Your task to perform on an android device: open app "Messenger Lite" (install if not already installed) and enter user name: "cataclysmic@outlook.com" and password: "victoriously" Image 0: 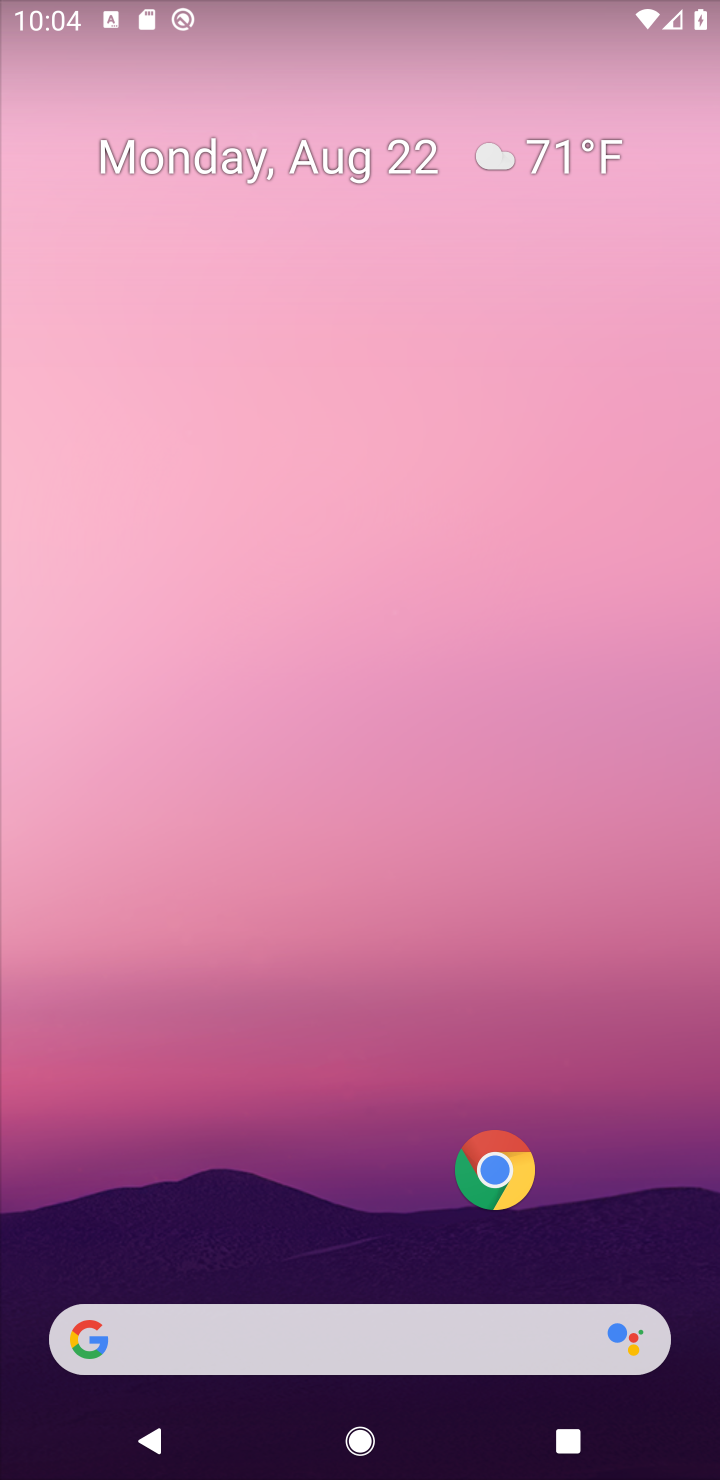
Step 0: drag from (312, 589) to (372, 65)
Your task to perform on an android device: open app "Messenger Lite" (install if not already installed) and enter user name: "cataclysmic@outlook.com" and password: "victoriously" Image 1: 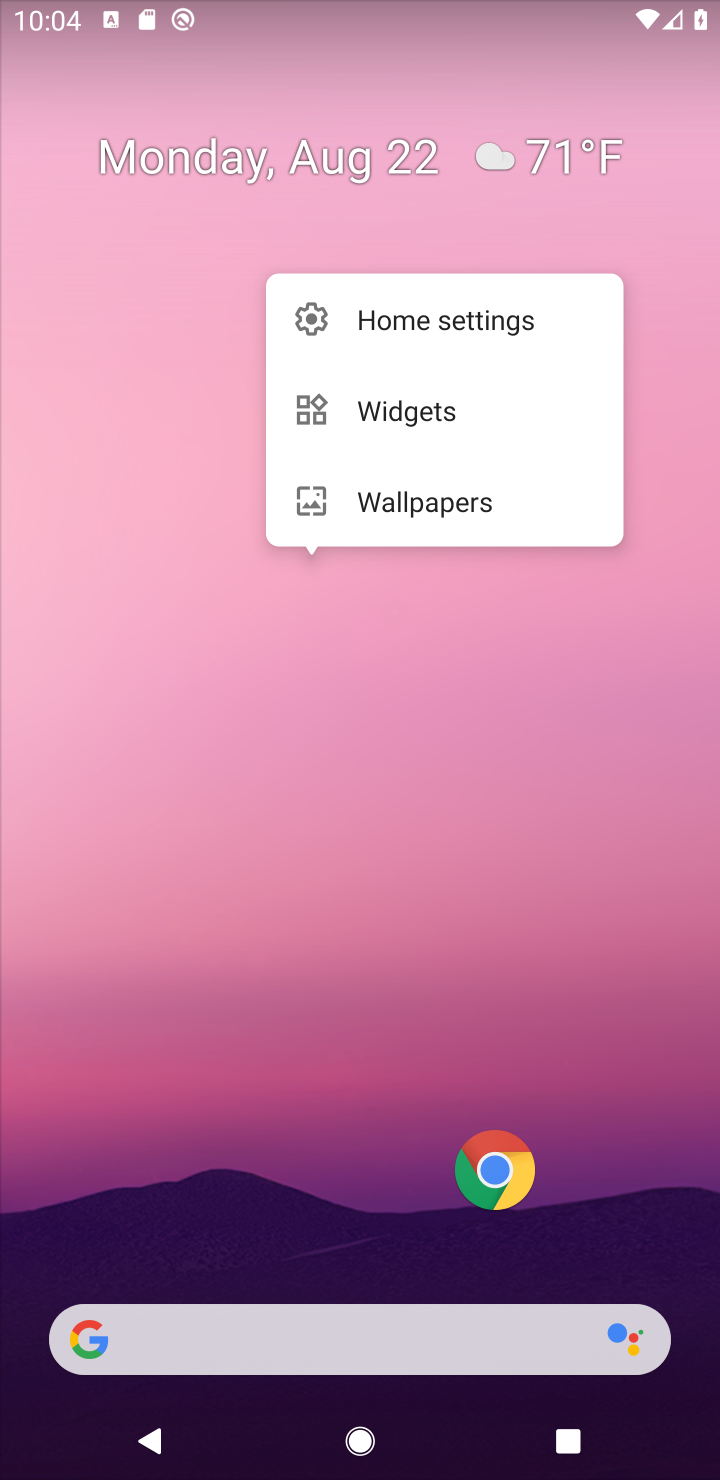
Step 1: click (247, 1078)
Your task to perform on an android device: open app "Messenger Lite" (install if not already installed) and enter user name: "cataclysmic@outlook.com" and password: "victoriously" Image 2: 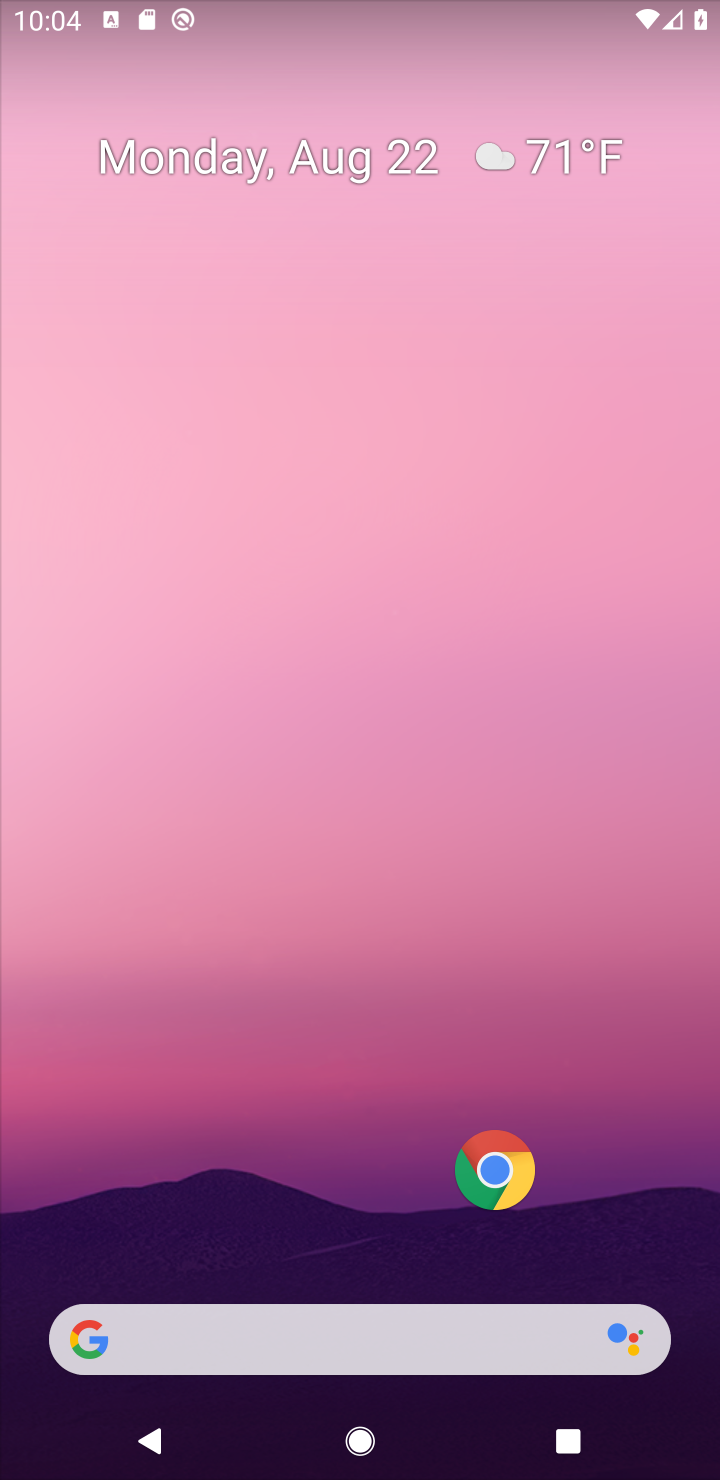
Step 2: drag from (250, 1099) to (440, 34)
Your task to perform on an android device: open app "Messenger Lite" (install if not already installed) and enter user name: "cataclysmic@outlook.com" and password: "victoriously" Image 3: 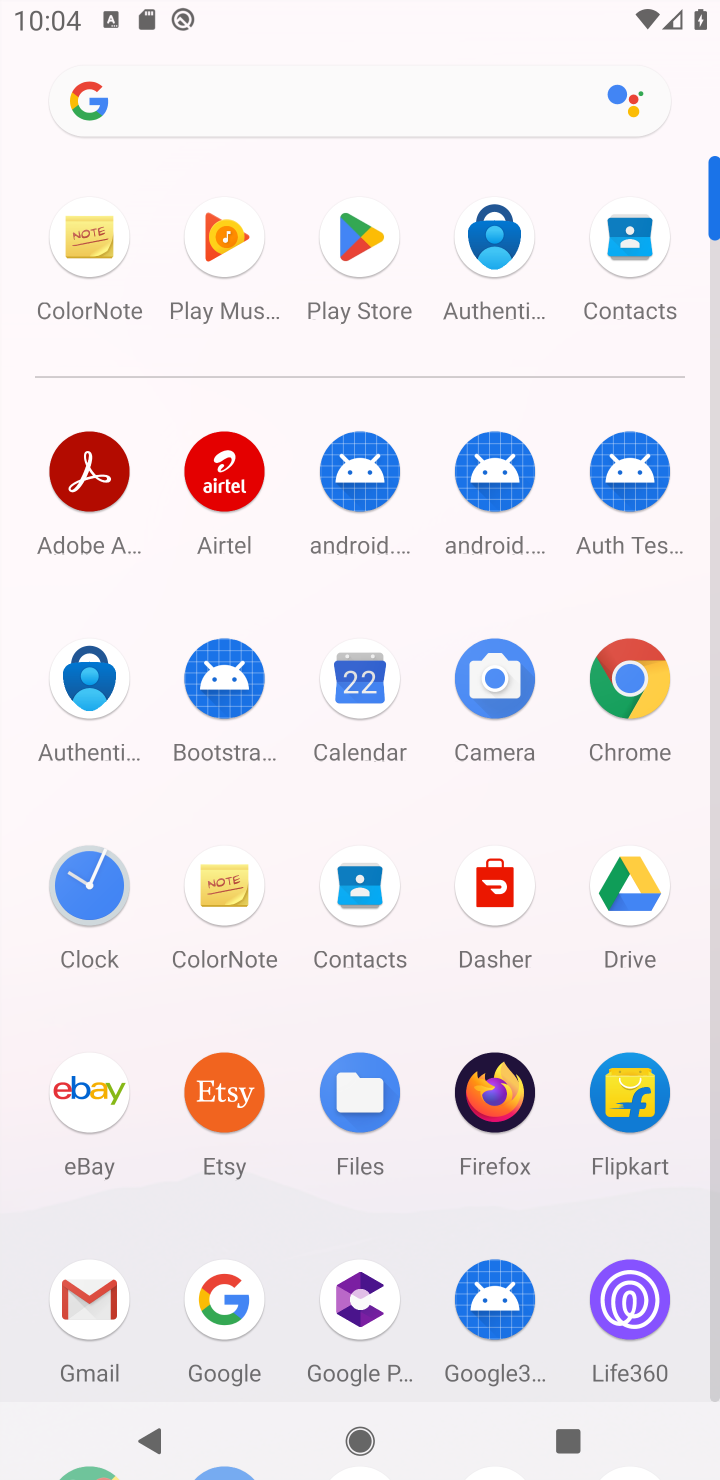
Step 3: click (361, 228)
Your task to perform on an android device: open app "Messenger Lite" (install if not already installed) and enter user name: "cataclysmic@outlook.com" and password: "victoriously" Image 4: 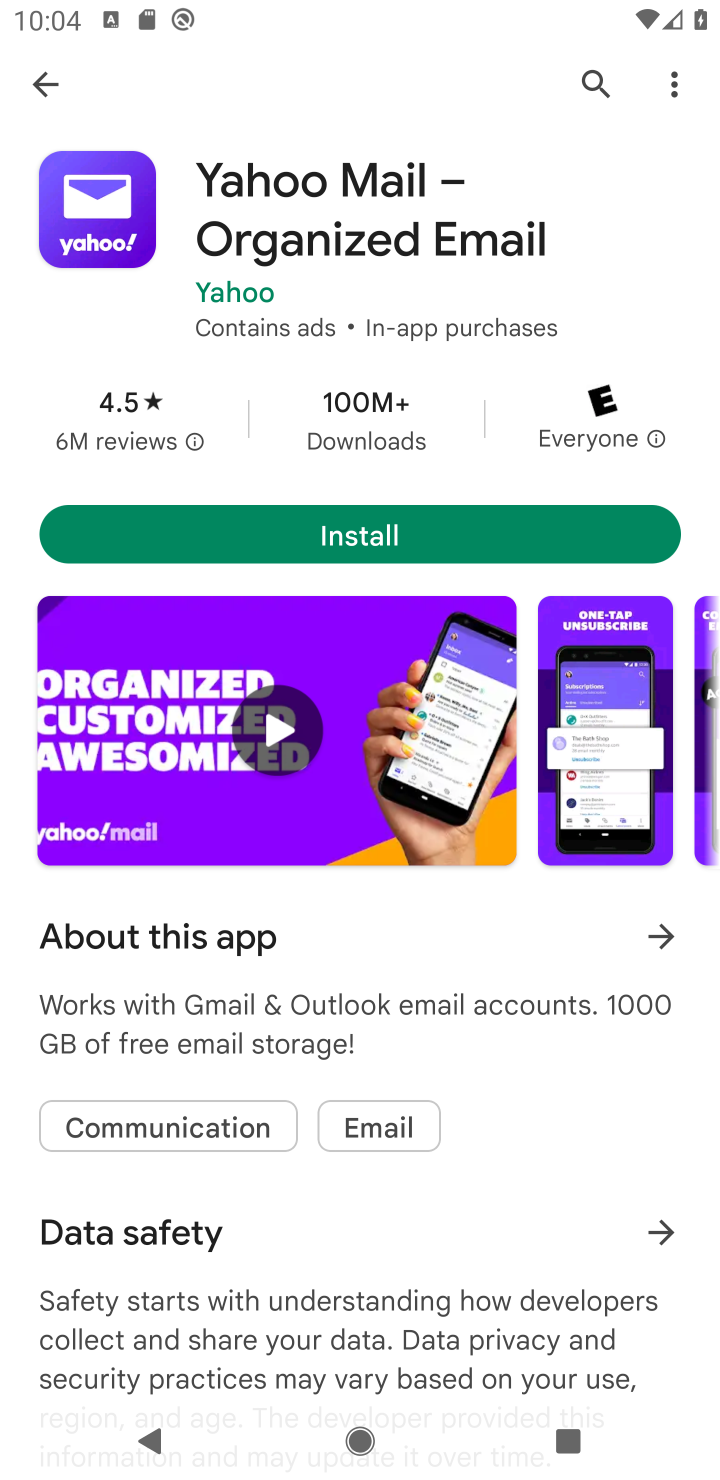
Step 4: click (599, 65)
Your task to perform on an android device: open app "Messenger Lite" (install if not already installed) and enter user name: "cataclysmic@outlook.com" and password: "victoriously" Image 5: 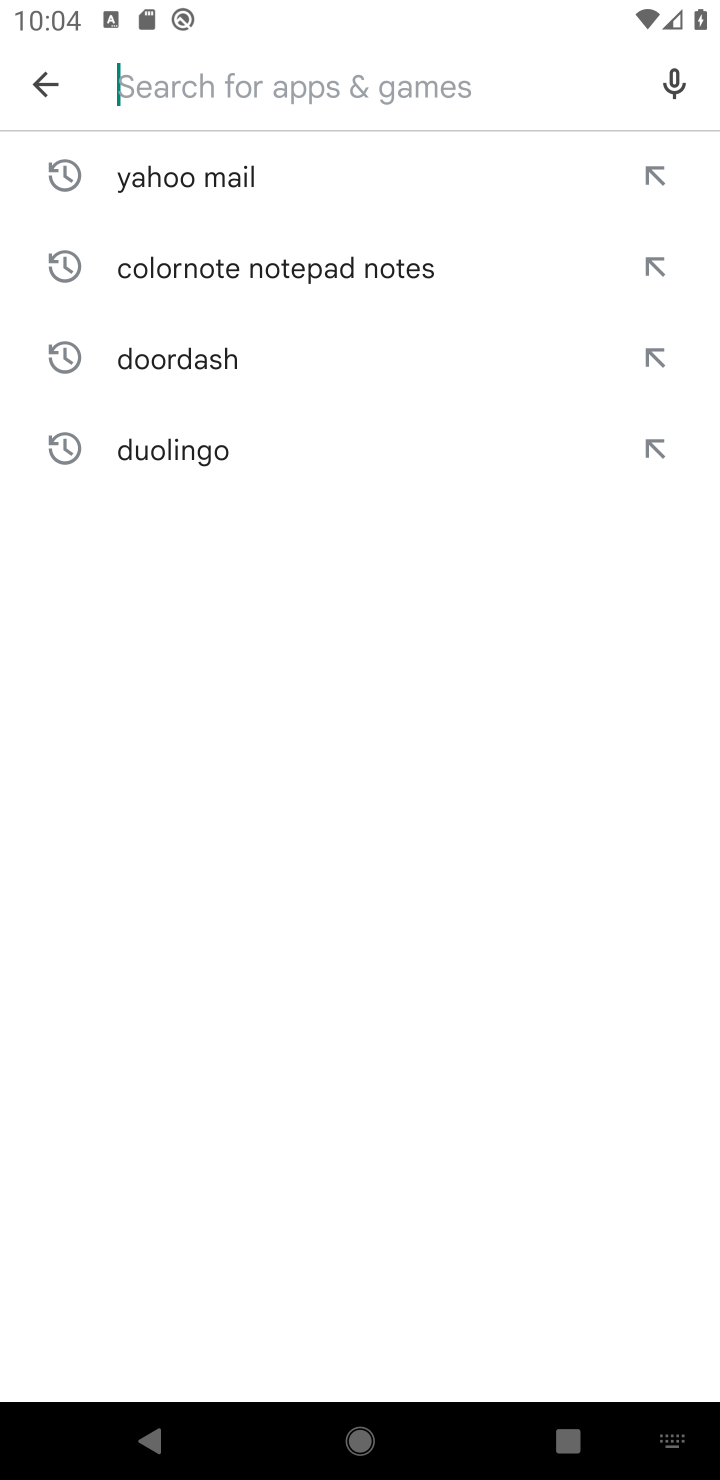
Step 5: type "Messenger Lite"
Your task to perform on an android device: open app "Messenger Lite" (install if not already installed) and enter user name: "cataclysmic@outlook.com" and password: "victoriously" Image 6: 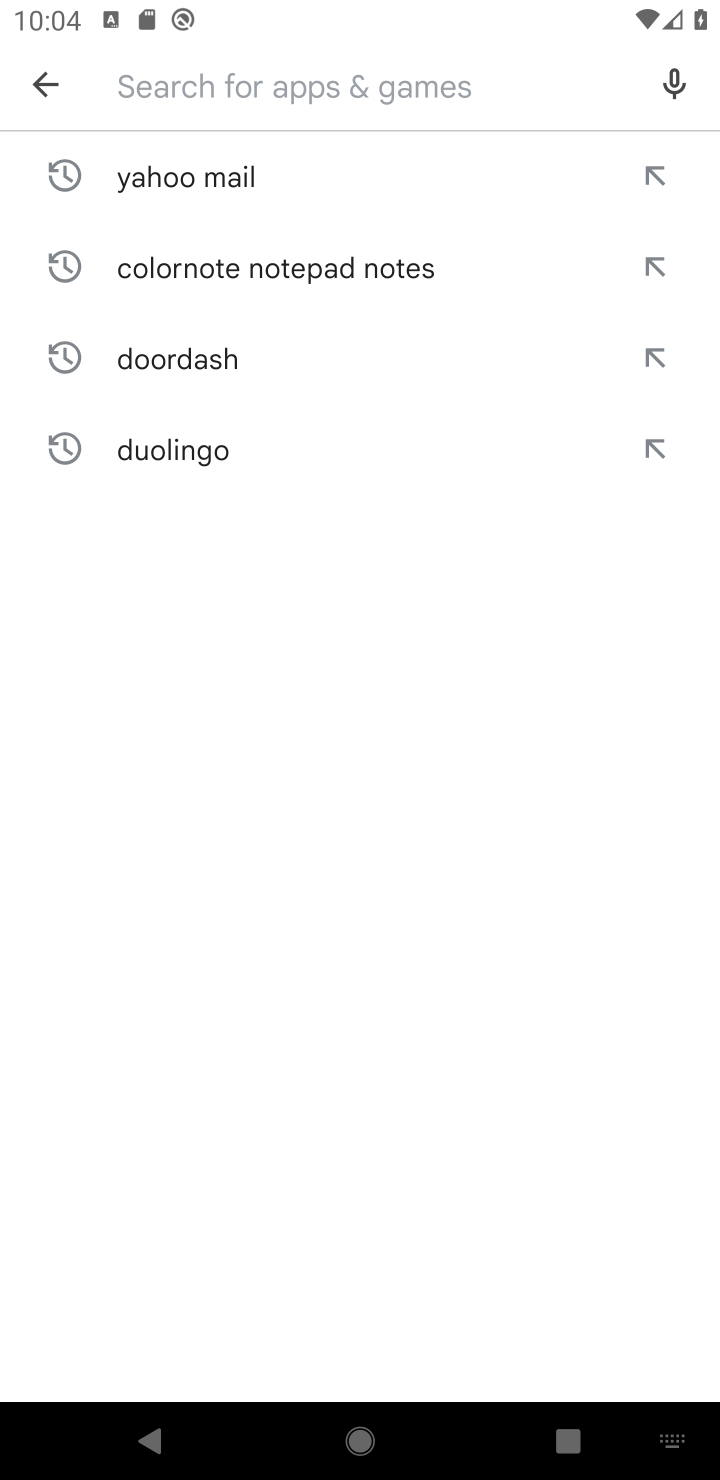
Step 6: click (485, 916)
Your task to perform on an android device: open app "Messenger Lite" (install if not already installed) and enter user name: "cataclysmic@outlook.com" and password: "victoriously" Image 7: 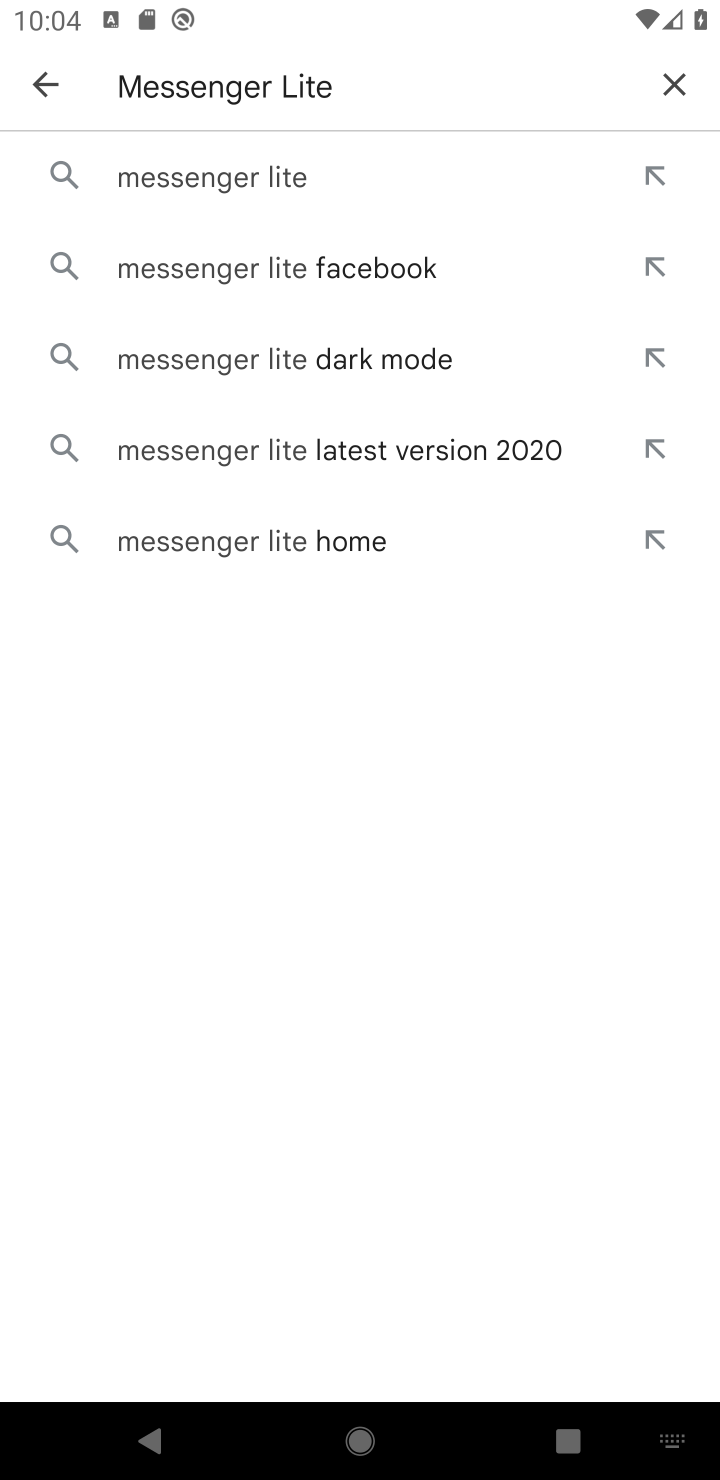
Step 7: click (230, 167)
Your task to perform on an android device: open app "Messenger Lite" (install if not already installed) and enter user name: "cataclysmic@outlook.com" and password: "victoriously" Image 8: 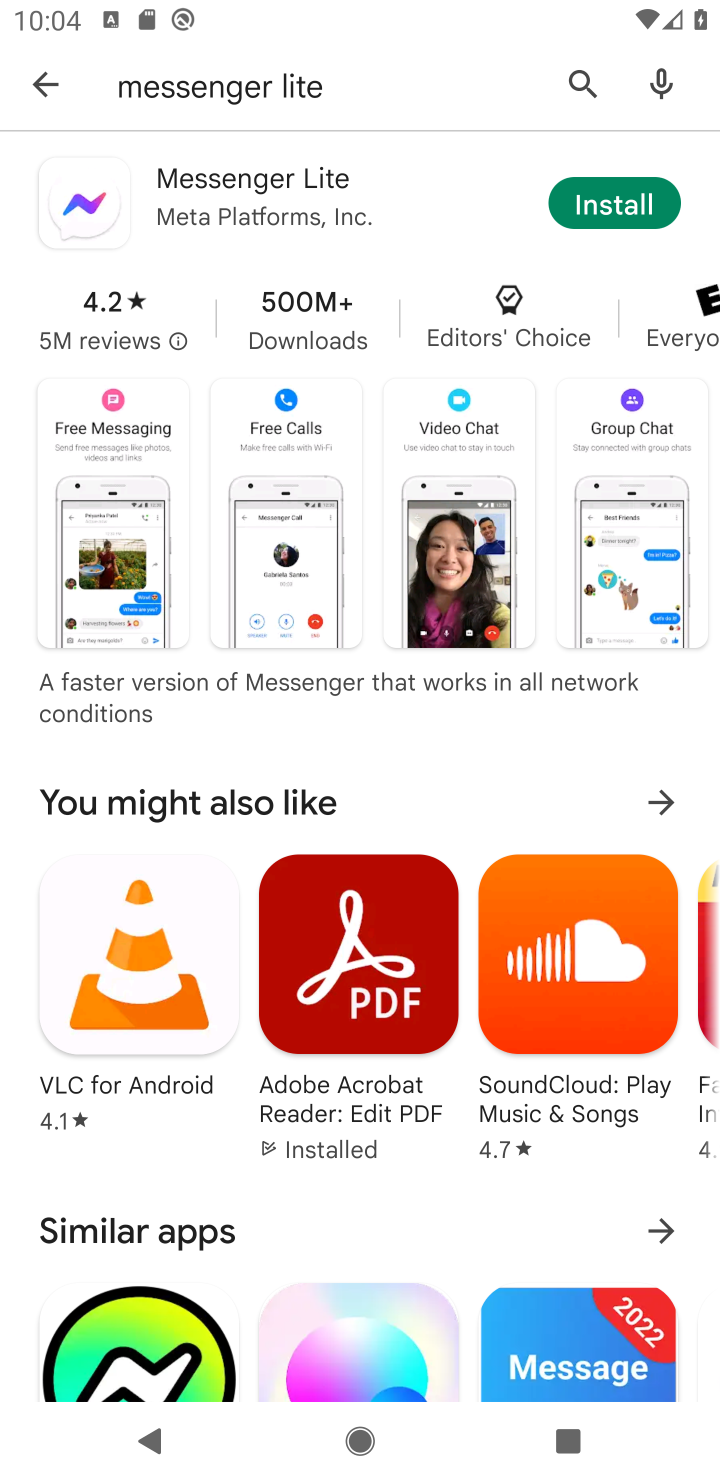
Step 8: click (585, 190)
Your task to perform on an android device: open app "Messenger Lite" (install if not already installed) and enter user name: "cataclysmic@outlook.com" and password: "victoriously" Image 9: 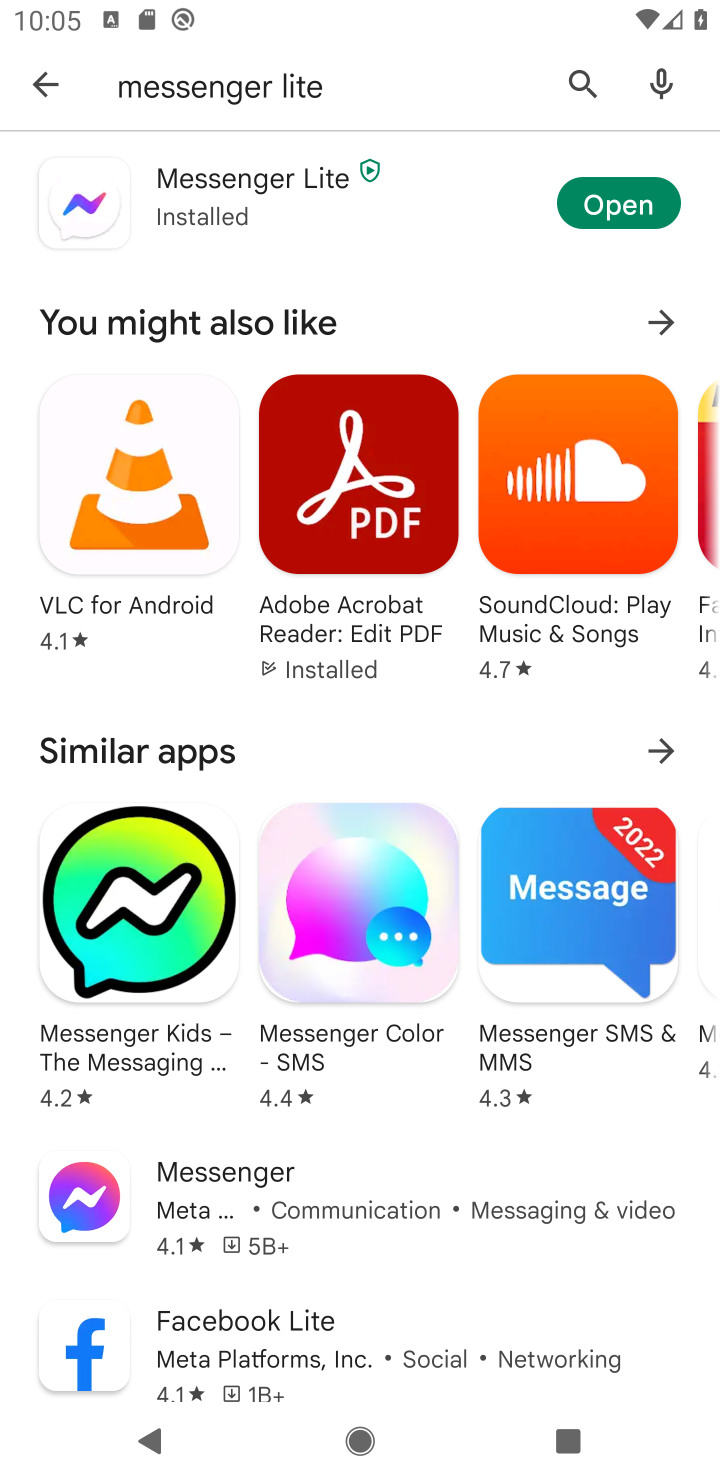
Step 9: click (594, 206)
Your task to perform on an android device: open app "Messenger Lite" (install if not already installed) and enter user name: "cataclysmic@outlook.com" and password: "victoriously" Image 10: 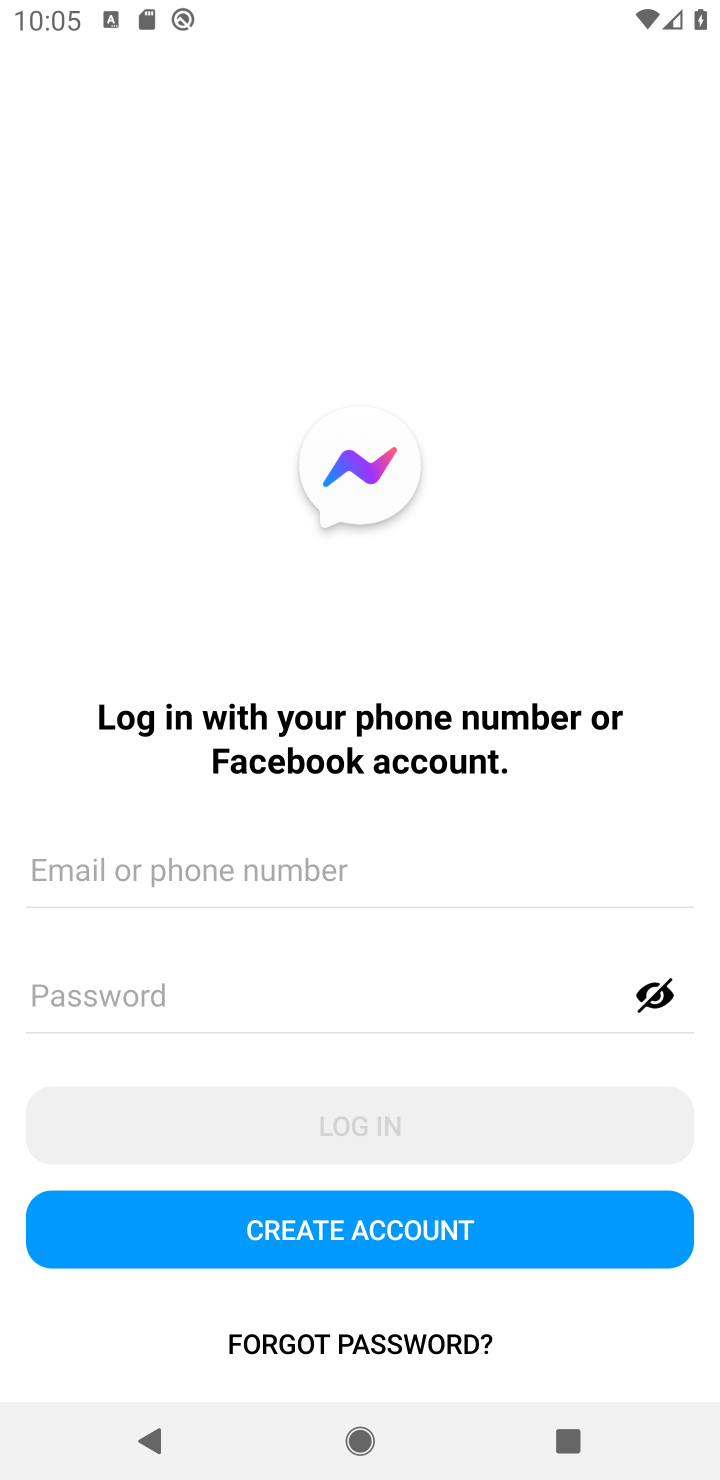
Step 10: click (168, 831)
Your task to perform on an android device: open app "Messenger Lite" (install if not already installed) and enter user name: "cataclysmic@outlook.com" and password: "victoriously" Image 11: 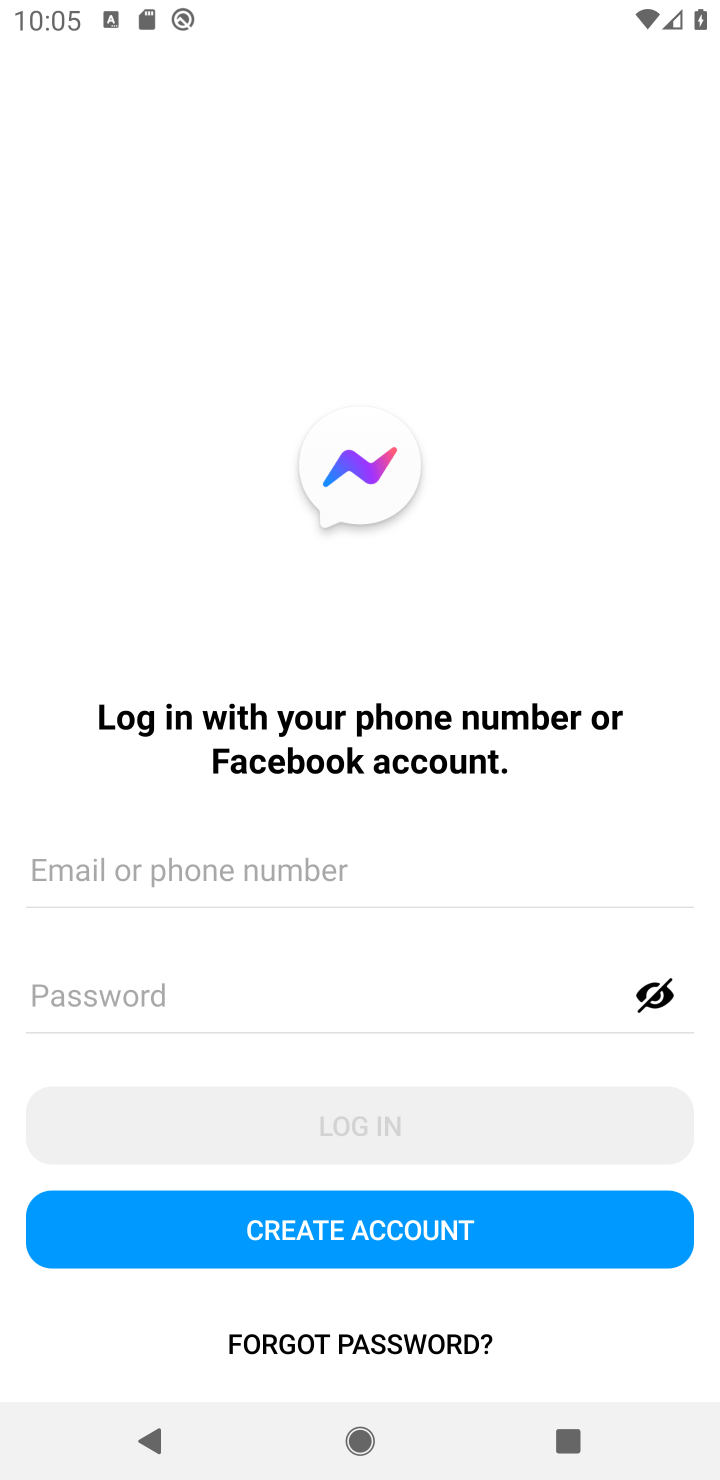
Step 11: type "cataclysmic@outlook.com"
Your task to perform on an android device: open app "Messenger Lite" (install if not already installed) and enter user name: "cataclysmic@outlook.com" and password: "victoriously" Image 12: 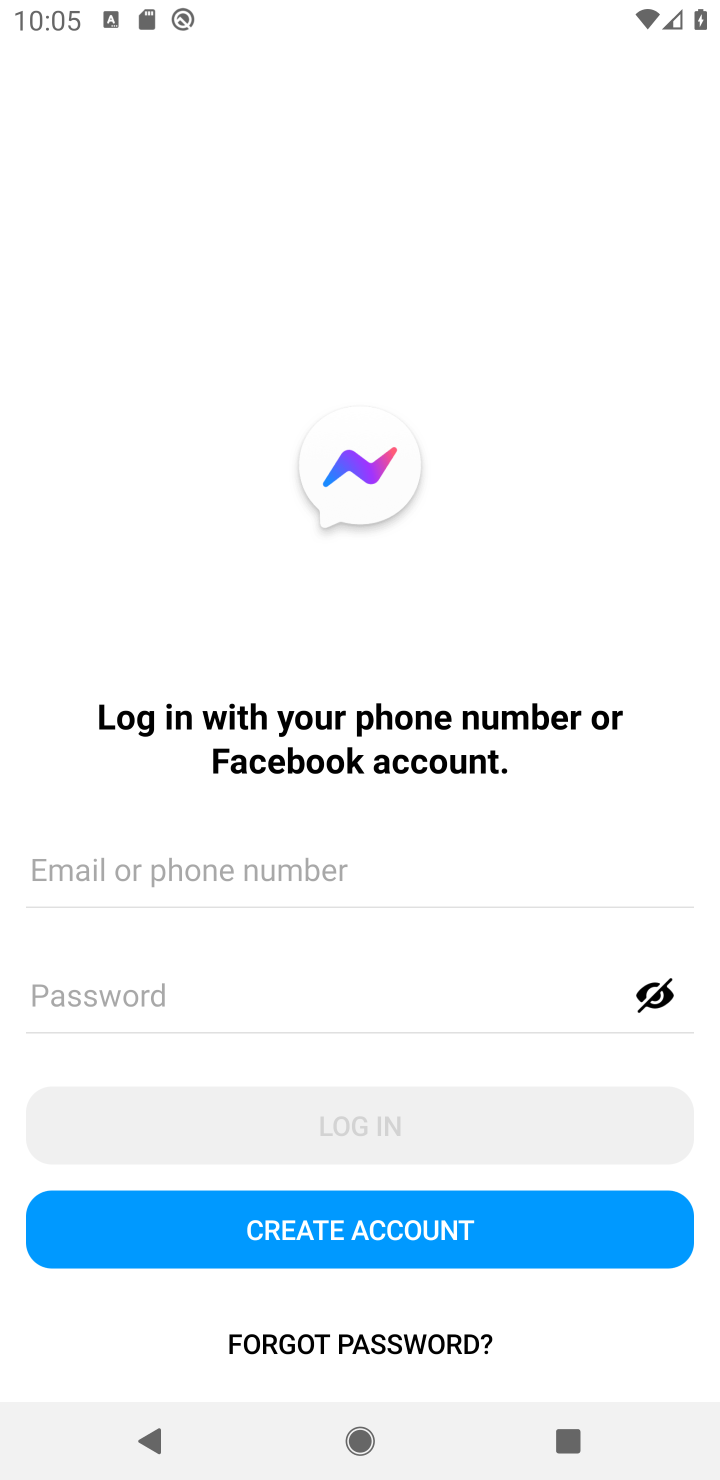
Step 12: click (302, 946)
Your task to perform on an android device: open app "Messenger Lite" (install if not already installed) and enter user name: "cataclysmic@outlook.com" and password: "victoriously" Image 13: 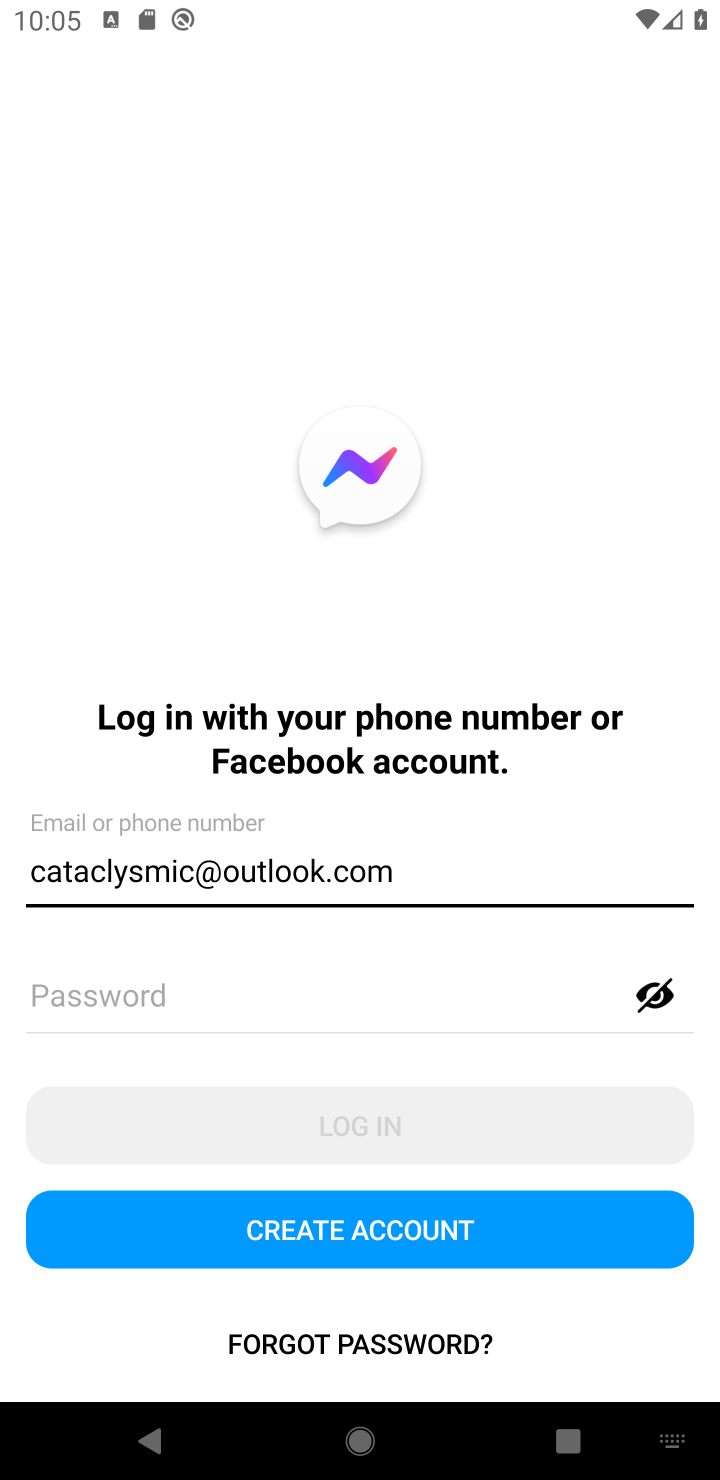
Step 13: click (130, 975)
Your task to perform on an android device: open app "Messenger Lite" (install if not already installed) and enter user name: "cataclysmic@outlook.com" and password: "victoriously" Image 14: 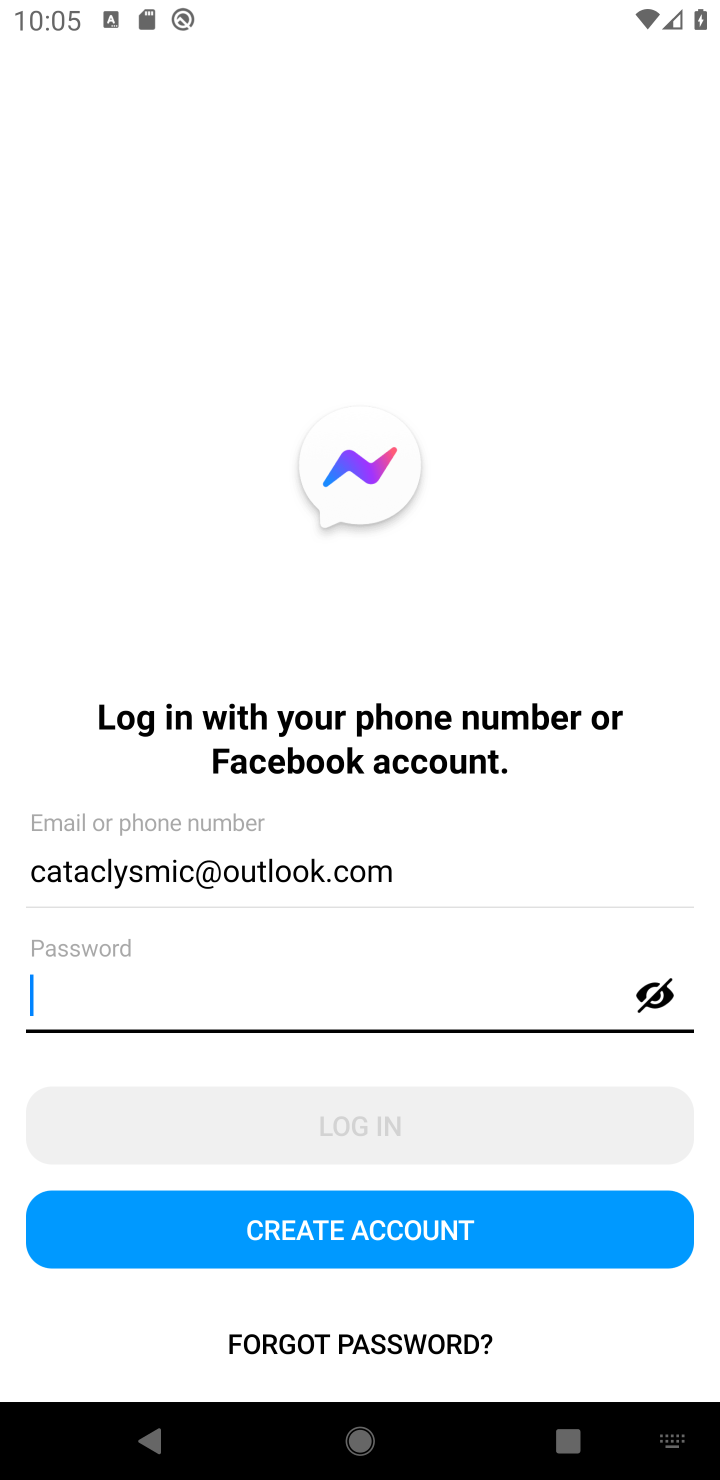
Step 14: click (106, 987)
Your task to perform on an android device: open app "Messenger Lite" (install if not already installed) and enter user name: "cataclysmic@outlook.com" and password: "victoriously" Image 15: 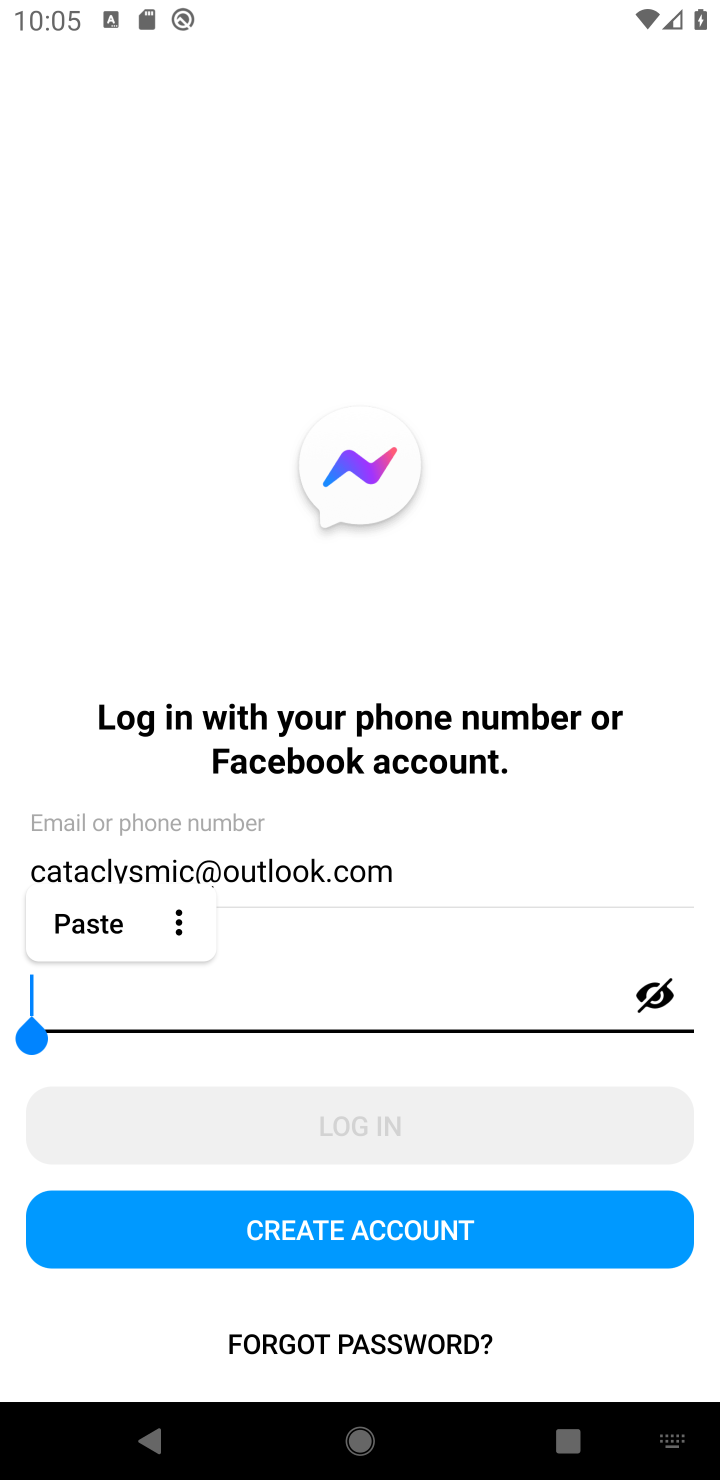
Step 15: type "victoriously"
Your task to perform on an android device: open app "Messenger Lite" (install if not already installed) and enter user name: "cataclysmic@outlook.com" and password: "victoriously" Image 16: 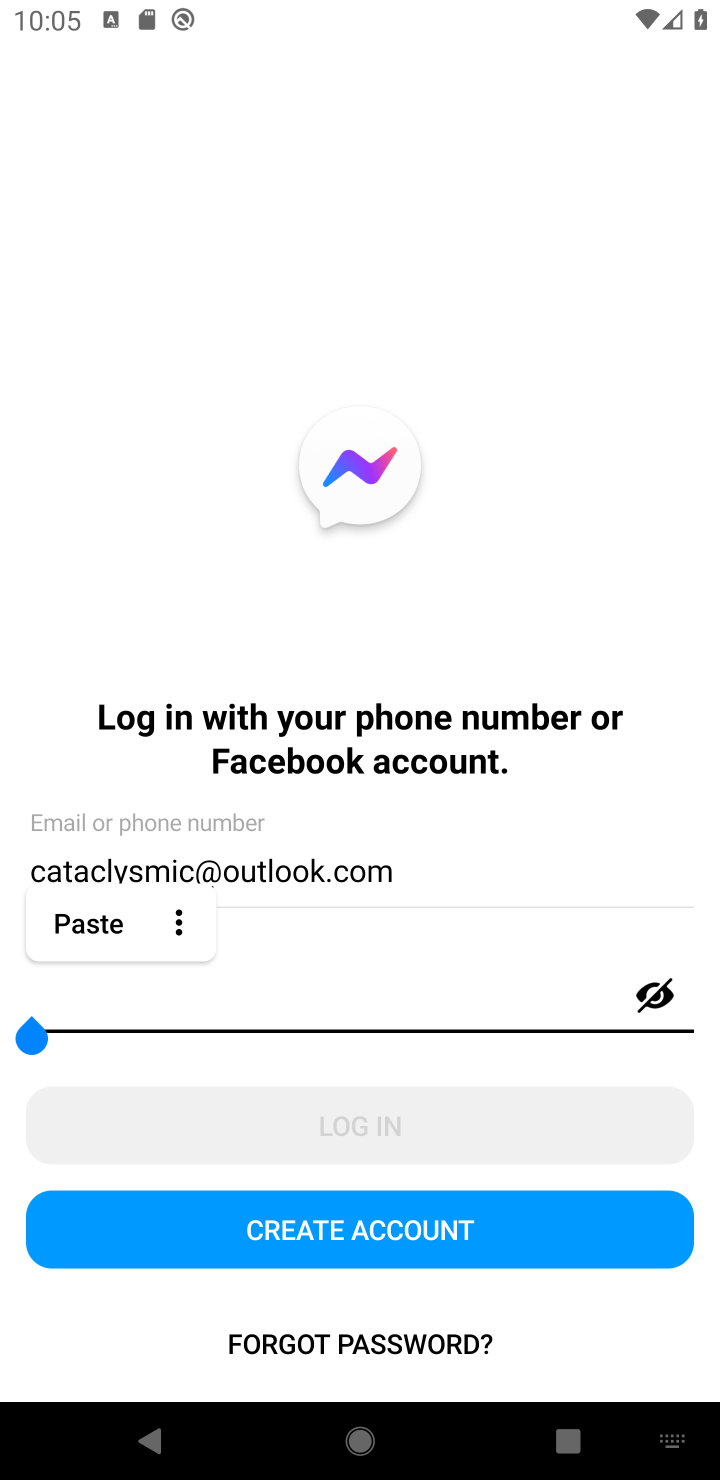
Step 16: click (100, 1049)
Your task to perform on an android device: open app "Messenger Lite" (install if not already installed) and enter user name: "cataclysmic@outlook.com" and password: "victoriously" Image 17: 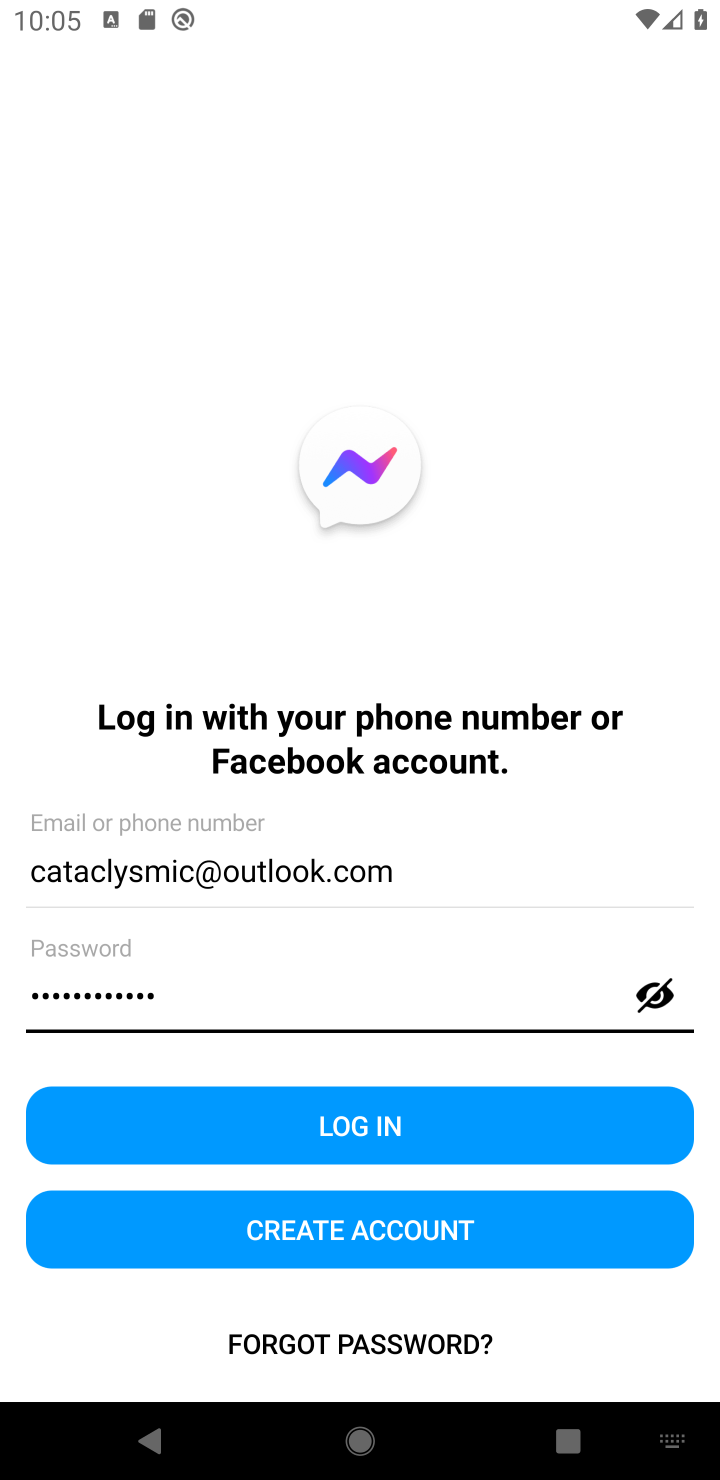
Step 17: task complete